Your task to perform on an android device: See recent photos Image 0: 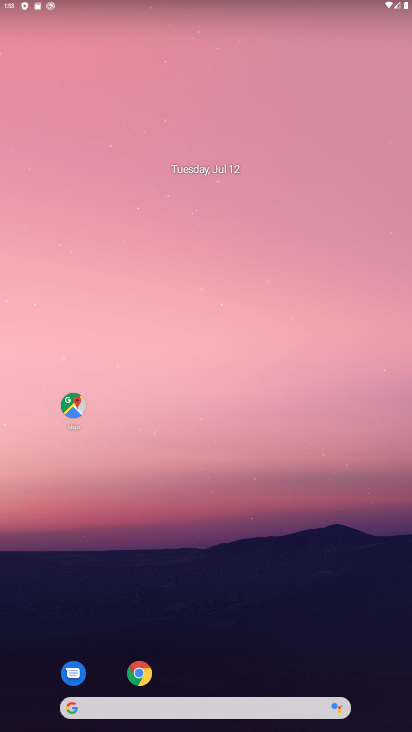
Step 0: drag from (257, 647) to (224, 68)
Your task to perform on an android device: See recent photos Image 1: 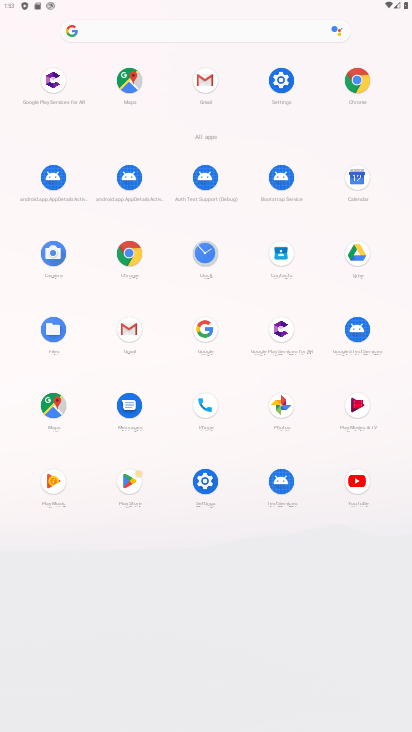
Step 1: click (285, 401)
Your task to perform on an android device: See recent photos Image 2: 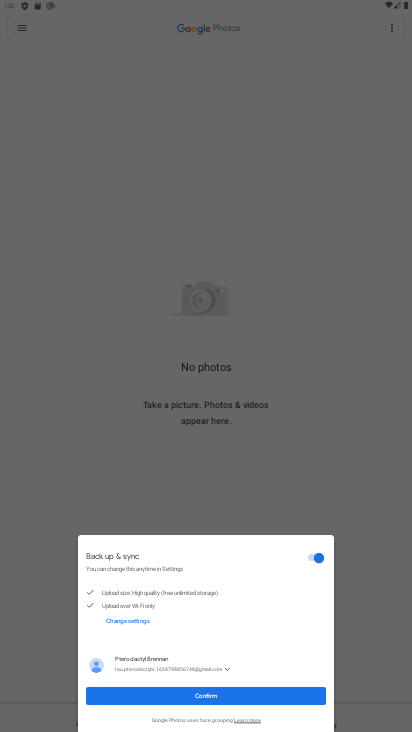
Step 2: click (150, 695)
Your task to perform on an android device: See recent photos Image 3: 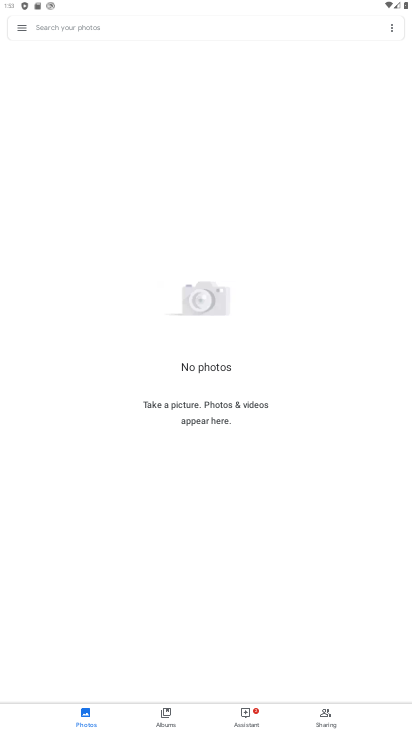
Step 3: click (84, 706)
Your task to perform on an android device: See recent photos Image 4: 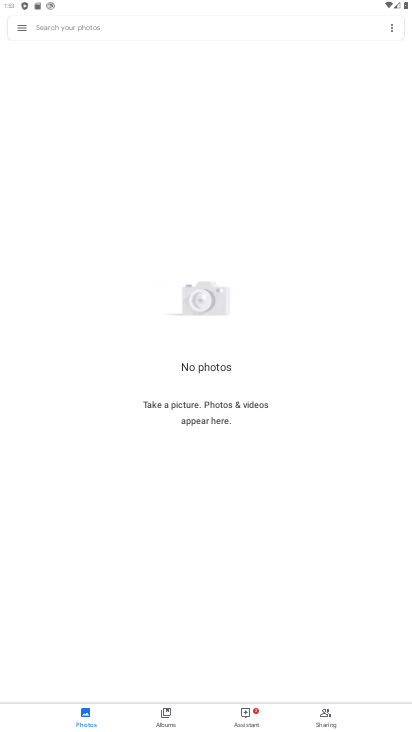
Step 4: task complete